Your task to perform on an android device: toggle pop-ups in chrome Image 0: 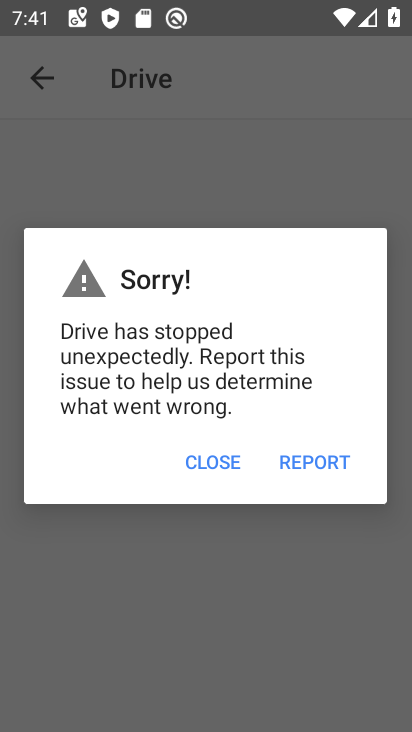
Step 0: press home button
Your task to perform on an android device: toggle pop-ups in chrome Image 1: 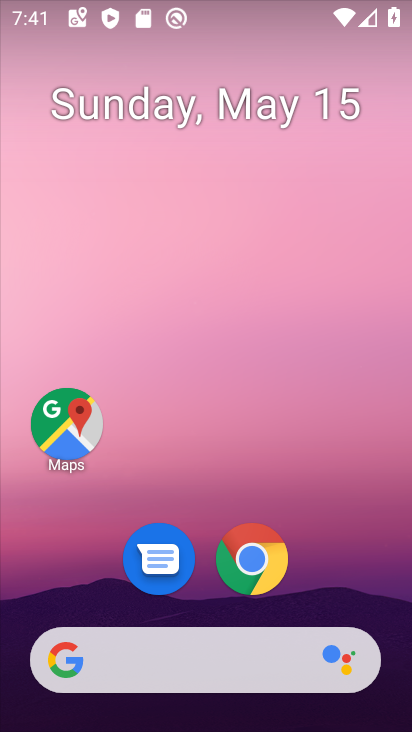
Step 1: click (293, 583)
Your task to perform on an android device: toggle pop-ups in chrome Image 2: 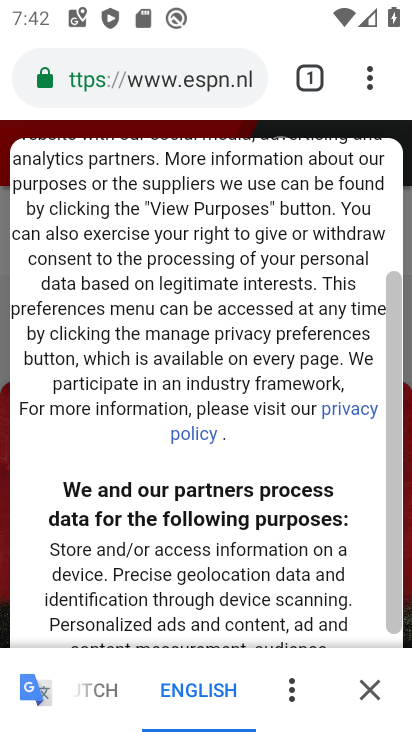
Step 2: click (370, 80)
Your task to perform on an android device: toggle pop-ups in chrome Image 3: 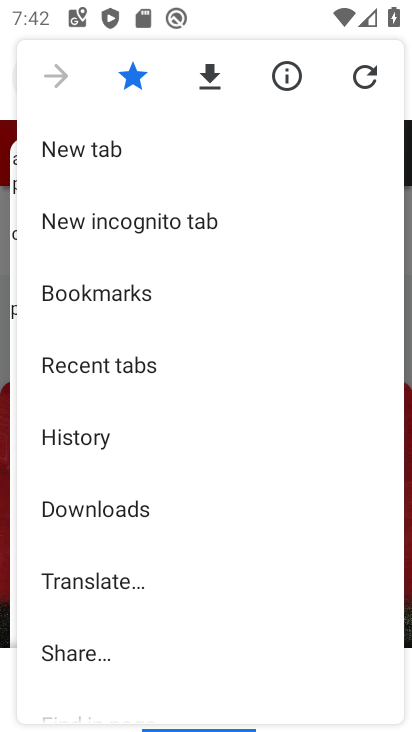
Step 3: drag from (131, 509) to (150, 216)
Your task to perform on an android device: toggle pop-ups in chrome Image 4: 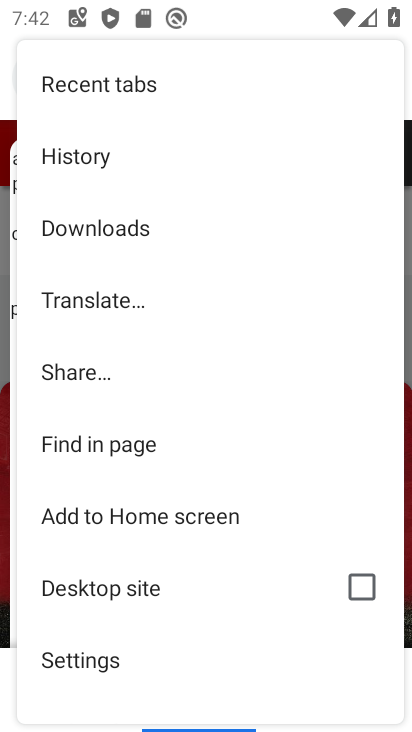
Step 4: click (189, 640)
Your task to perform on an android device: toggle pop-ups in chrome Image 5: 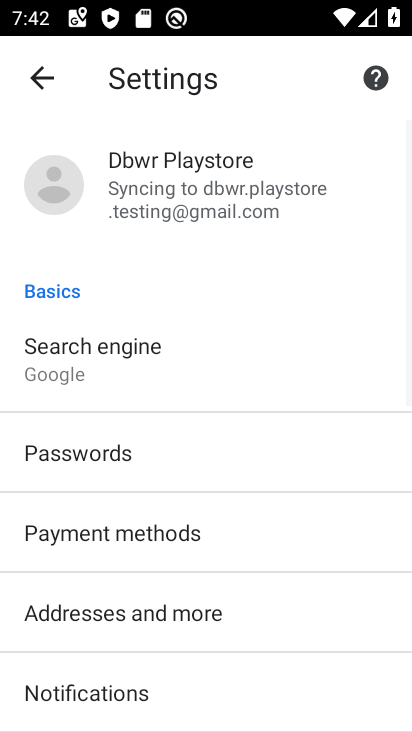
Step 5: drag from (183, 648) to (223, 278)
Your task to perform on an android device: toggle pop-ups in chrome Image 6: 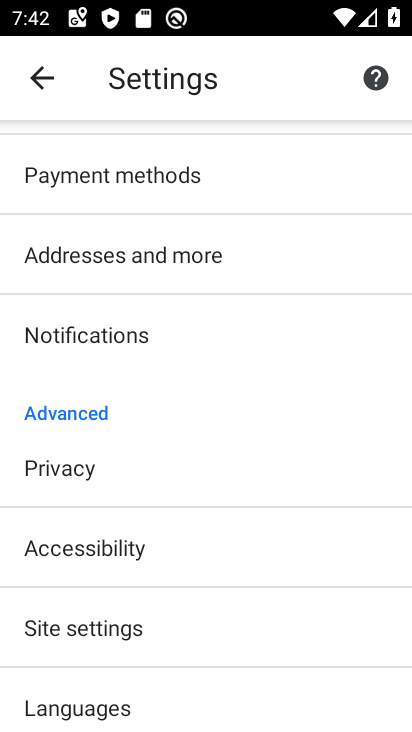
Step 6: click (178, 597)
Your task to perform on an android device: toggle pop-ups in chrome Image 7: 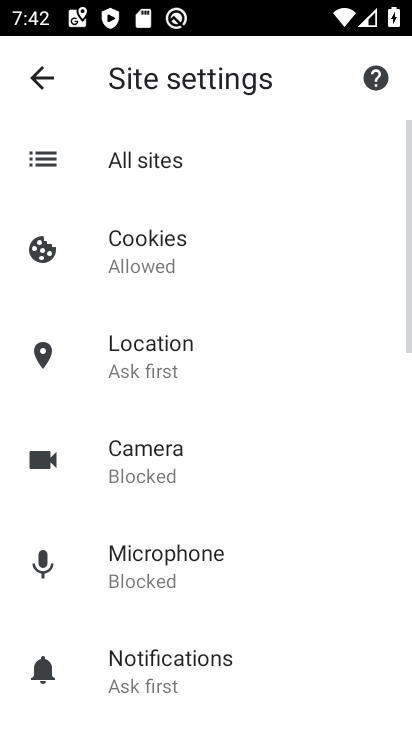
Step 7: drag from (231, 549) to (295, 351)
Your task to perform on an android device: toggle pop-ups in chrome Image 8: 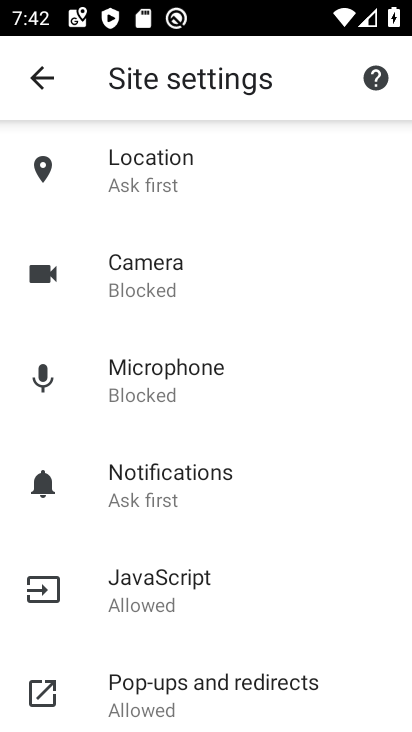
Step 8: click (191, 686)
Your task to perform on an android device: toggle pop-ups in chrome Image 9: 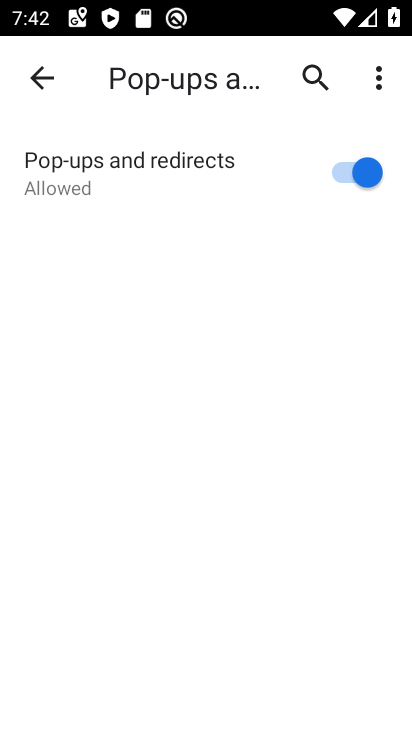
Step 9: click (360, 135)
Your task to perform on an android device: toggle pop-ups in chrome Image 10: 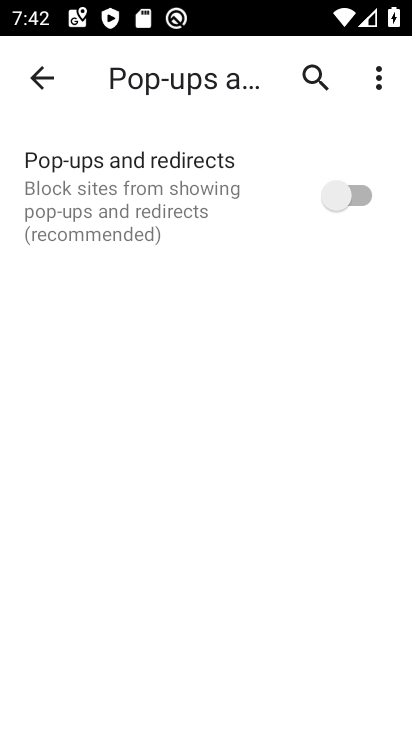
Step 10: task complete